Your task to perform on an android device: delete browsing data in the chrome app Image 0: 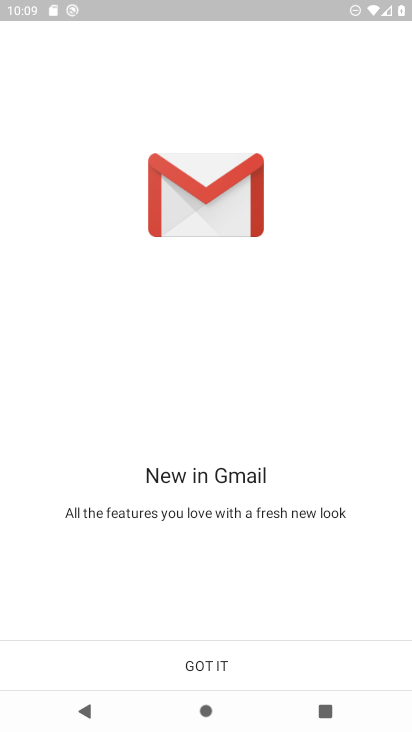
Step 0: press home button
Your task to perform on an android device: delete browsing data in the chrome app Image 1: 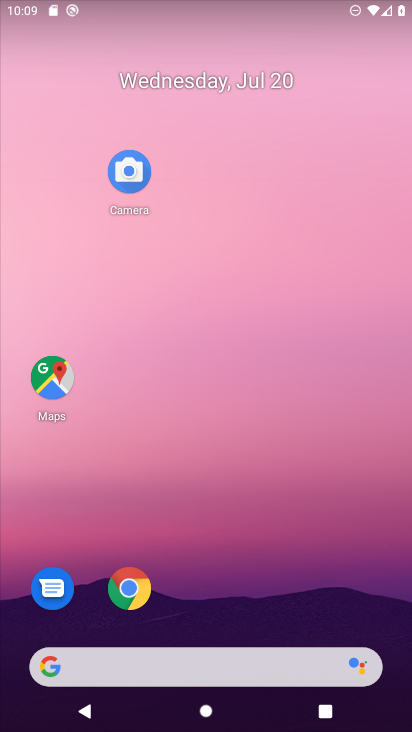
Step 1: drag from (230, 617) to (233, 41)
Your task to perform on an android device: delete browsing data in the chrome app Image 2: 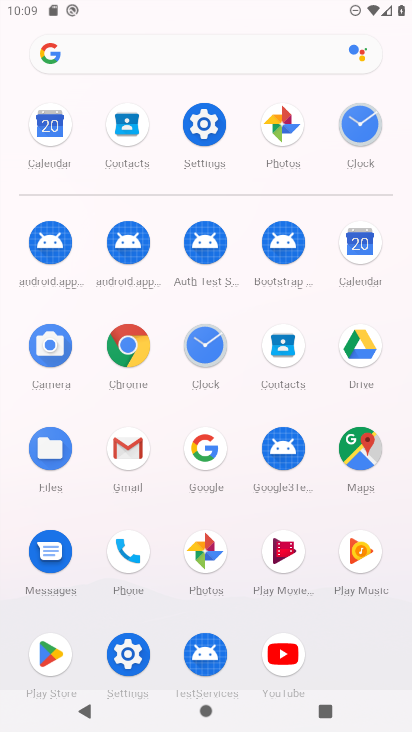
Step 2: click (144, 342)
Your task to perform on an android device: delete browsing data in the chrome app Image 3: 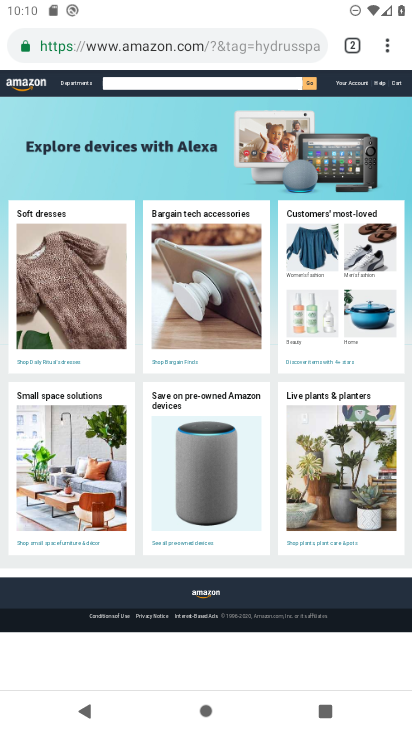
Step 3: drag from (386, 45) to (255, 549)
Your task to perform on an android device: delete browsing data in the chrome app Image 4: 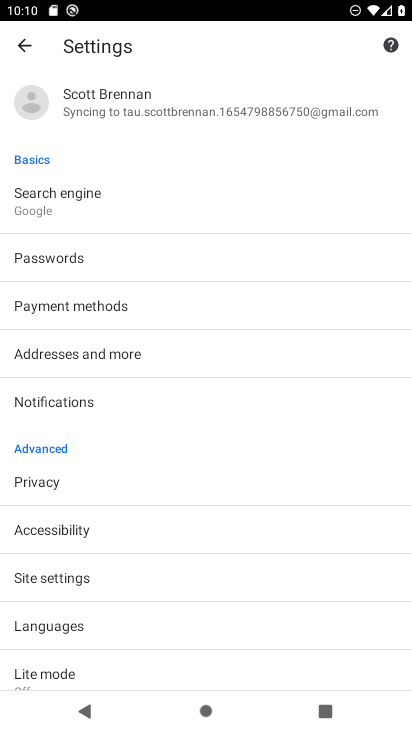
Step 4: click (31, 478)
Your task to perform on an android device: delete browsing data in the chrome app Image 5: 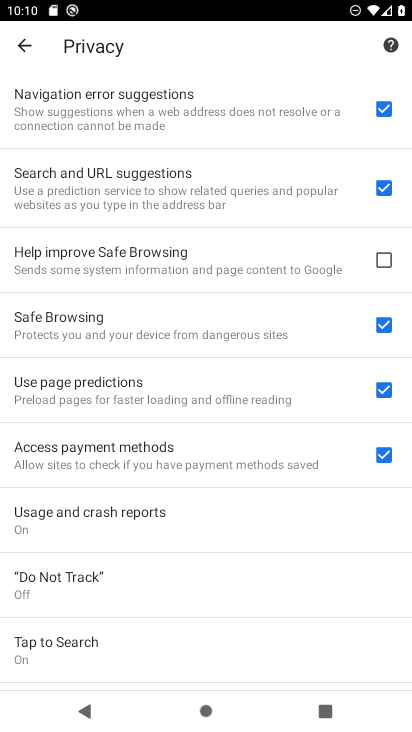
Step 5: drag from (155, 619) to (171, 122)
Your task to perform on an android device: delete browsing data in the chrome app Image 6: 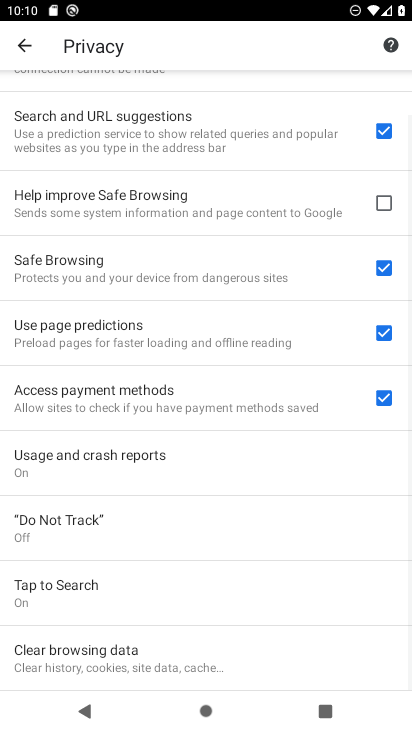
Step 6: click (83, 663)
Your task to perform on an android device: delete browsing data in the chrome app Image 7: 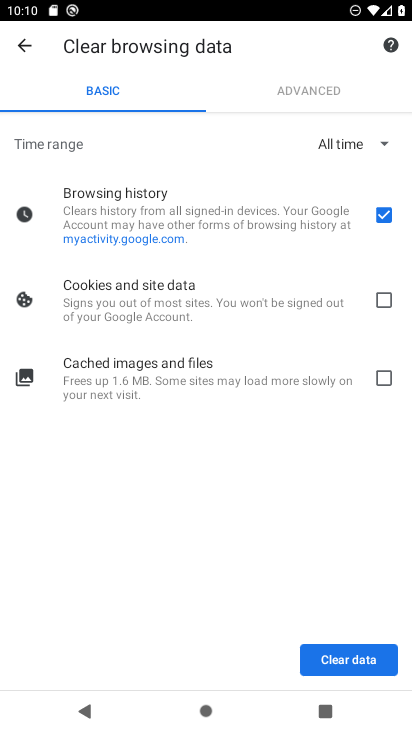
Step 7: click (337, 668)
Your task to perform on an android device: delete browsing data in the chrome app Image 8: 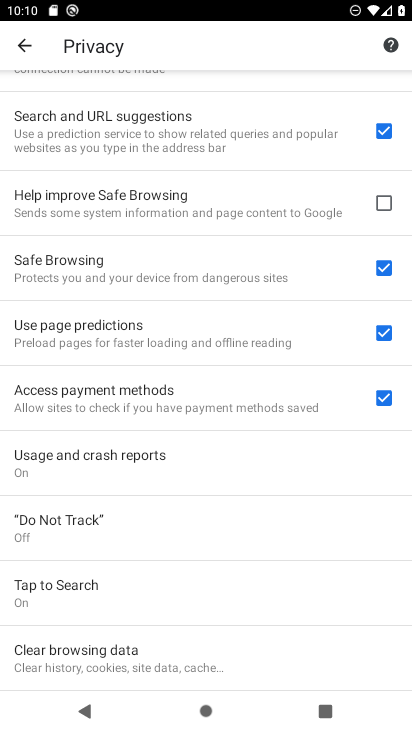
Step 8: click (62, 648)
Your task to perform on an android device: delete browsing data in the chrome app Image 9: 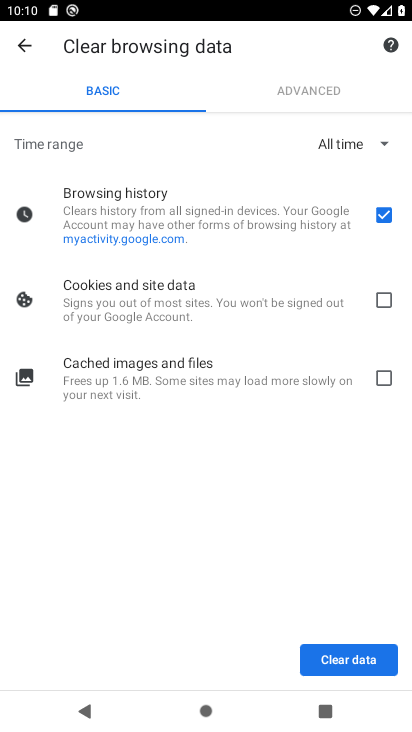
Step 9: click (358, 656)
Your task to perform on an android device: delete browsing data in the chrome app Image 10: 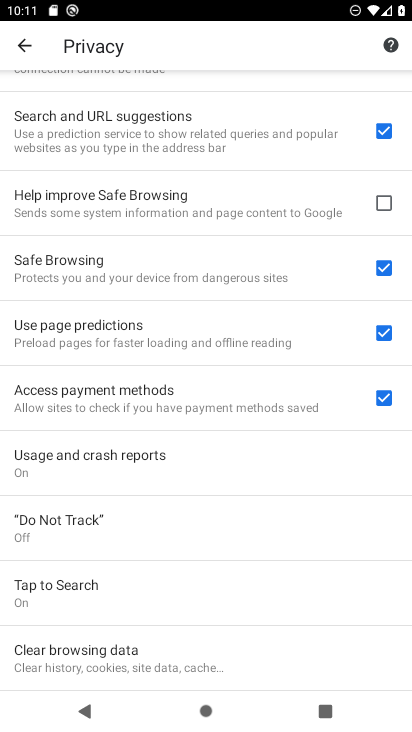
Step 10: task complete